Your task to perform on an android device: turn vacation reply on in the gmail app Image 0: 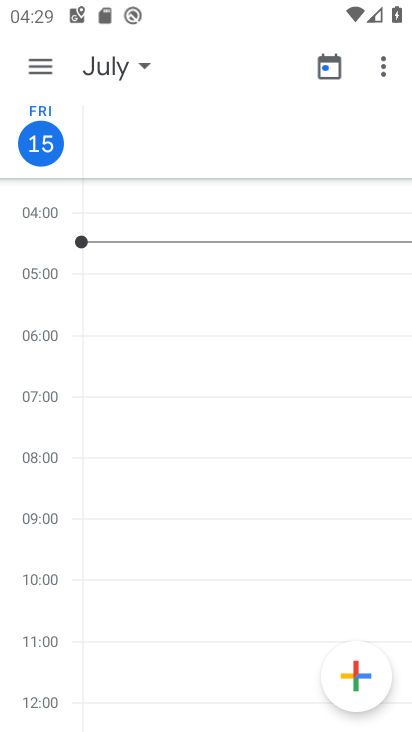
Step 0: press home button
Your task to perform on an android device: turn vacation reply on in the gmail app Image 1: 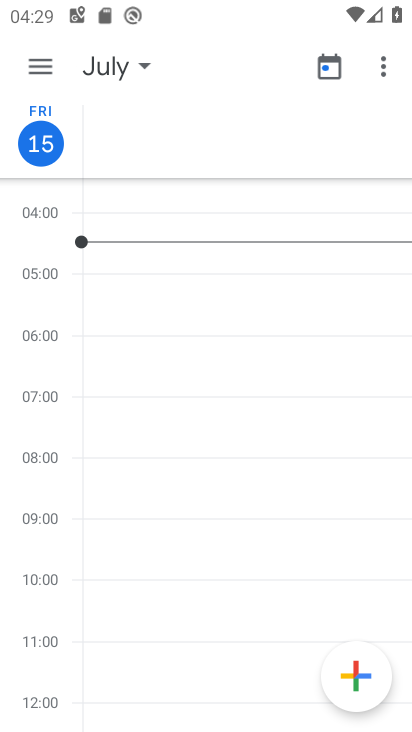
Step 1: press home button
Your task to perform on an android device: turn vacation reply on in the gmail app Image 2: 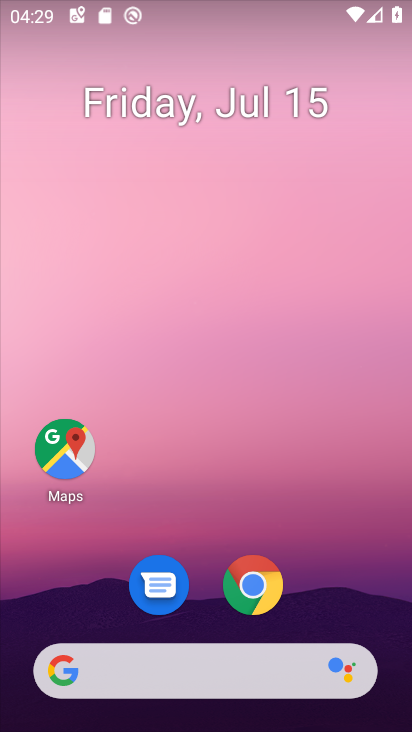
Step 2: drag from (313, 523) to (332, 53)
Your task to perform on an android device: turn vacation reply on in the gmail app Image 3: 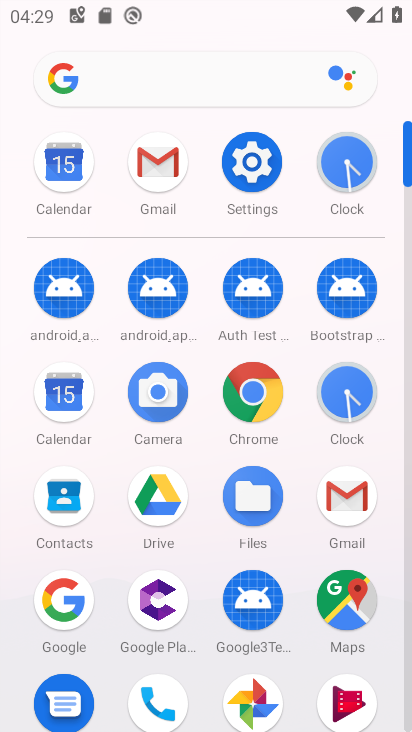
Step 3: click (157, 153)
Your task to perform on an android device: turn vacation reply on in the gmail app Image 4: 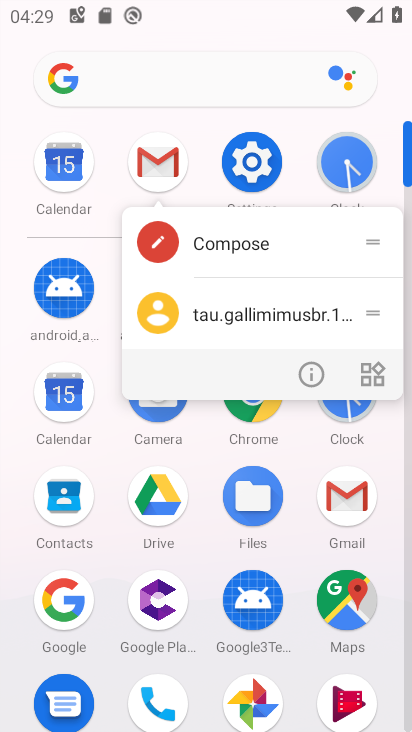
Step 4: click (158, 155)
Your task to perform on an android device: turn vacation reply on in the gmail app Image 5: 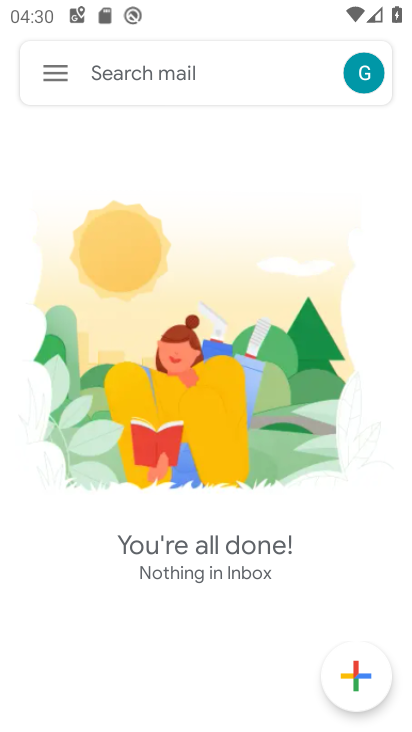
Step 5: click (49, 72)
Your task to perform on an android device: turn vacation reply on in the gmail app Image 6: 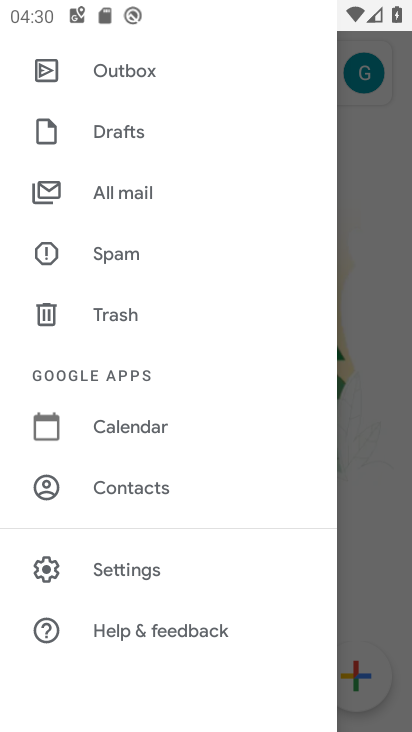
Step 6: click (124, 567)
Your task to perform on an android device: turn vacation reply on in the gmail app Image 7: 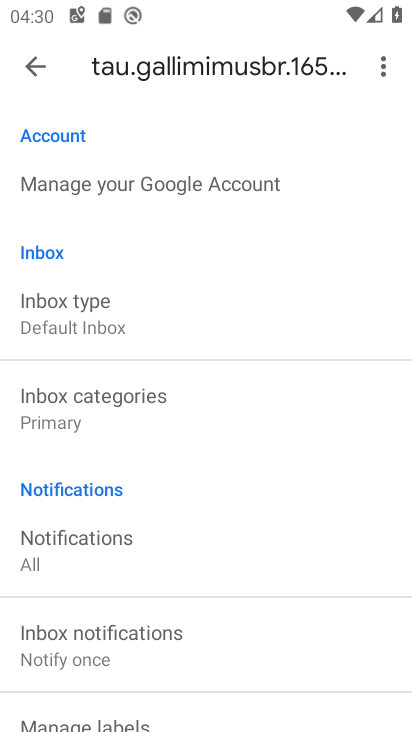
Step 7: drag from (226, 543) to (250, 96)
Your task to perform on an android device: turn vacation reply on in the gmail app Image 8: 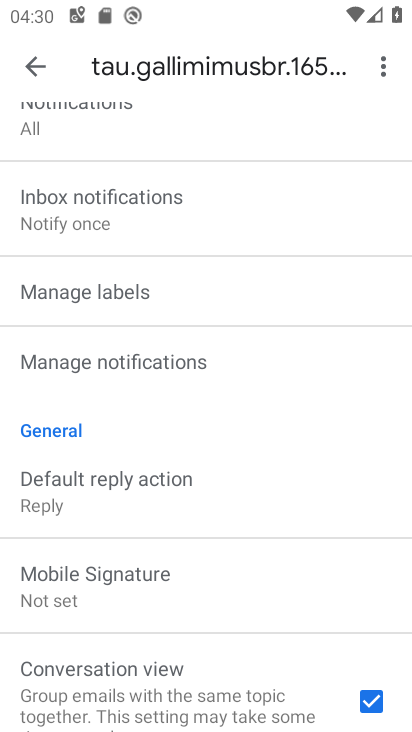
Step 8: drag from (251, 457) to (268, 84)
Your task to perform on an android device: turn vacation reply on in the gmail app Image 9: 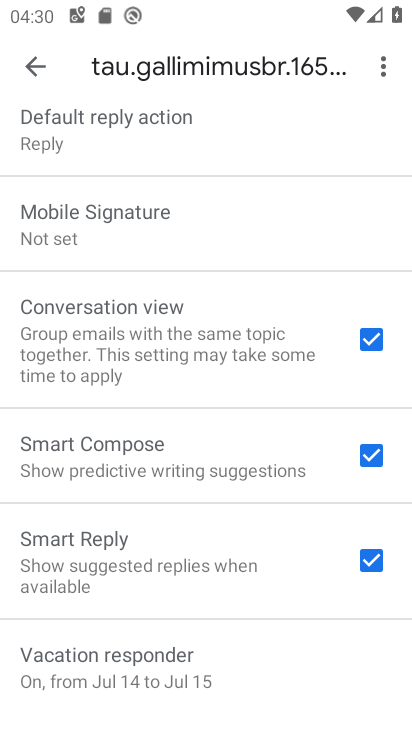
Step 9: drag from (247, 391) to (256, 243)
Your task to perform on an android device: turn vacation reply on in the gmail app Image 10: 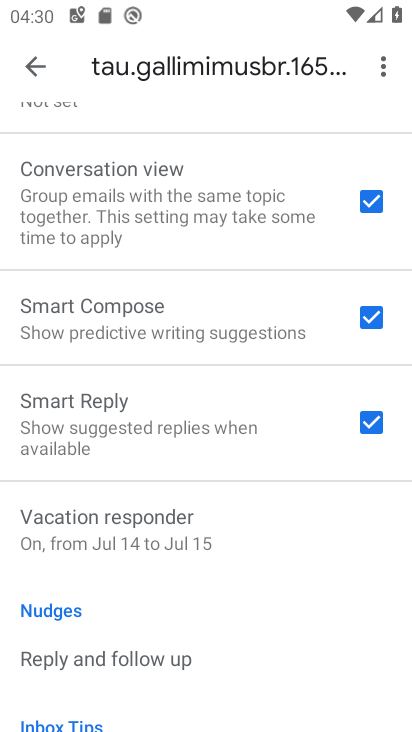
Step 10: click (224, 521)
Your task to perform on an android device: turn vacation reply on in the gmail app Image 11: 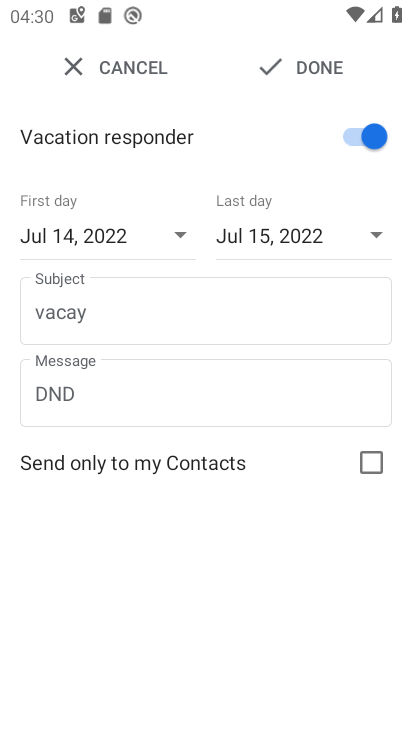
Step 11: task complete